Your task to perform on an android device: visit the assistant section in the google photos Image 0: 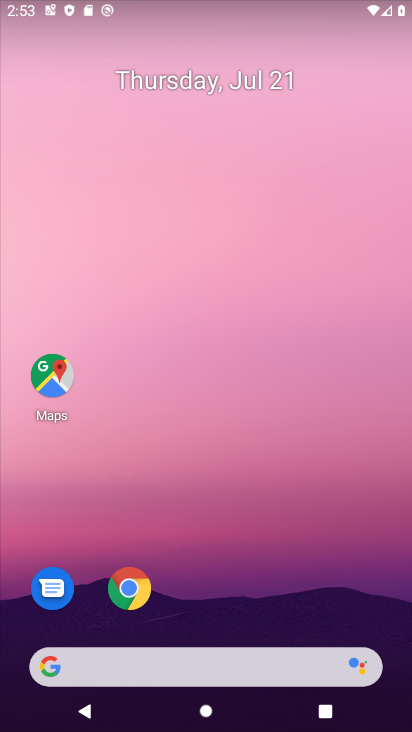
Step 0: drag from (239, 527) to (169, 28)
Your task to perform on an android device: visit the assistant section in the google photos Image 1: 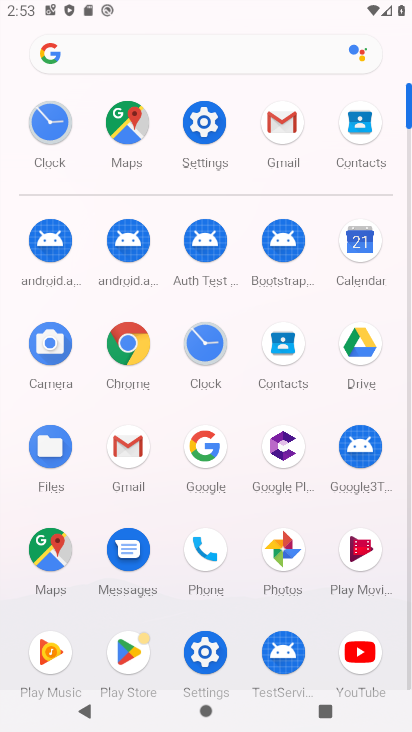
Step 1: click (287, 548)
Your task to perform on an android device: visit the assistant section in the google photos Image 2: 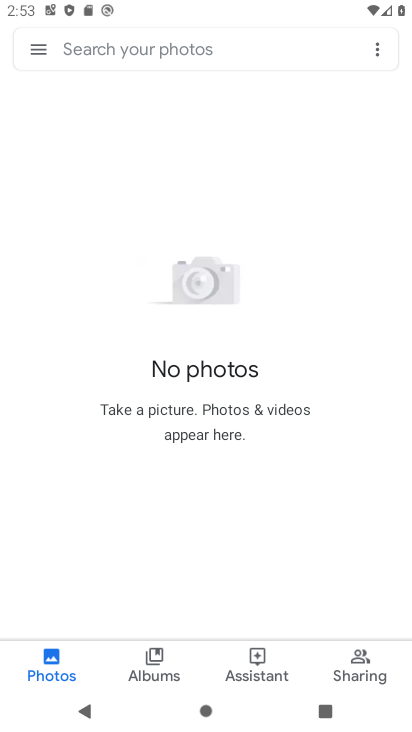
Step 2: click (258, 668)
Your task to perform on an android device: visit the assistant section in the google photos Image 3: 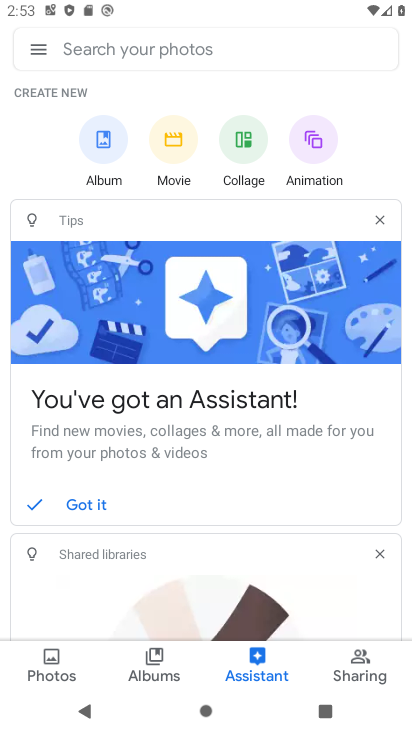
Step 3: task complete